Your task to perform on an android device: uninstall "Flipkart Online Shopping App" Image 0: 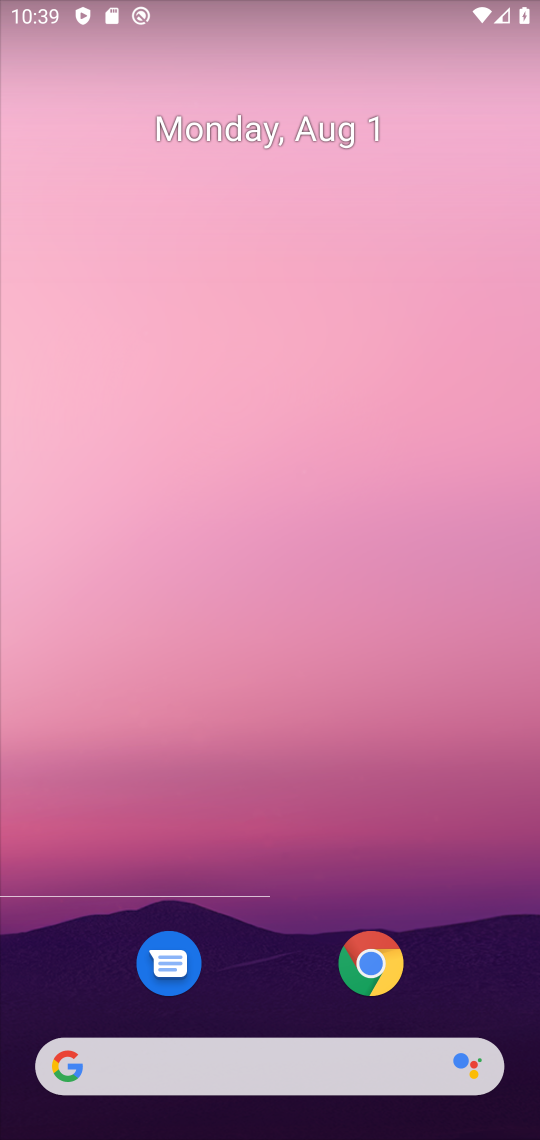
Step 0: click (456, 320)
Your task to perform on an android device: uninstall "Flipkart Online Shopping App" Image 1: 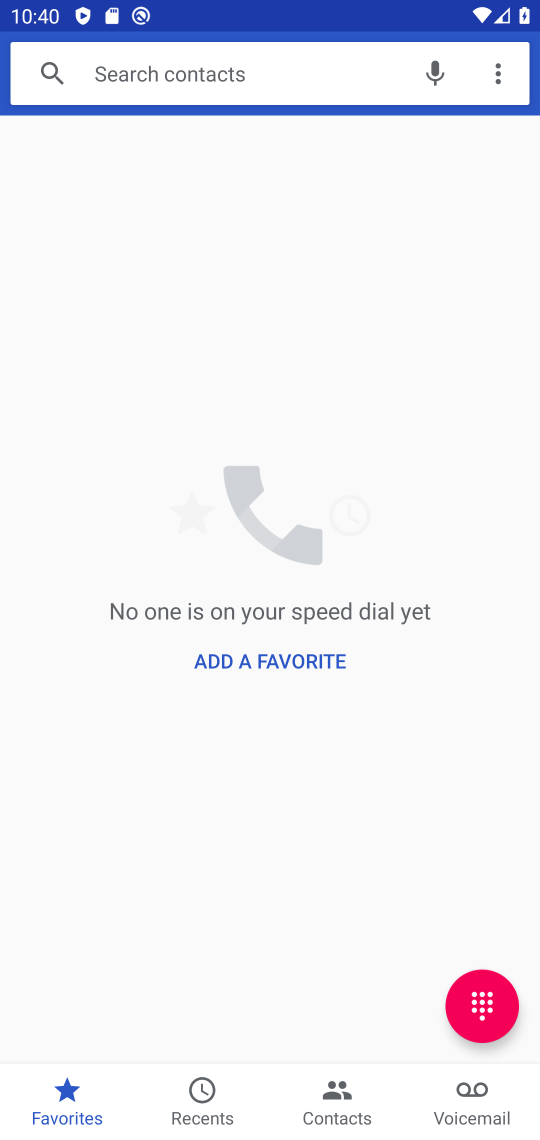
Step 1: press home button
Your task to perform on an android device: uninstall "Flipkart Online Shopping App" Image 2: 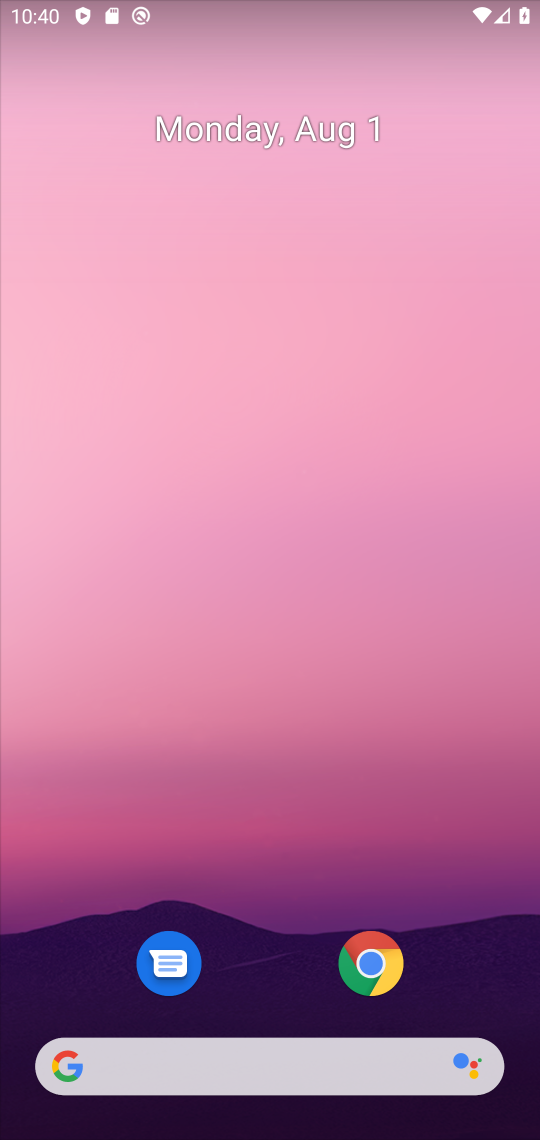
Step 2: drag from (262, 883) to (109, 7)
Your task to perform on an android device: uninstall "Flipkart Online Shopping App" Image 3: 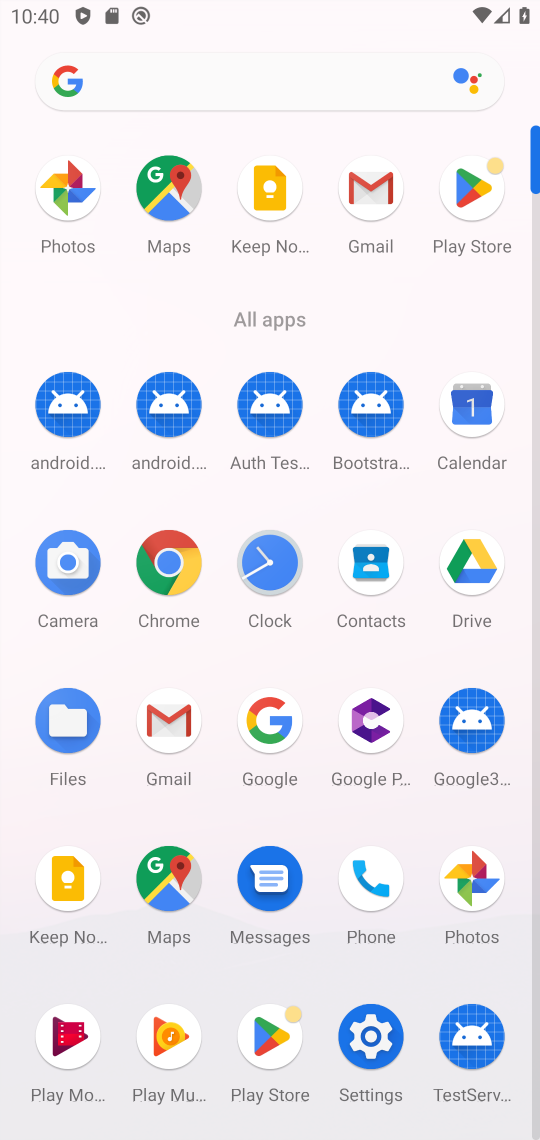
Step 3: click (479, 193)
Your task to perform on an android device: uninstall "Flipkart Online Shopping App" Image 4: 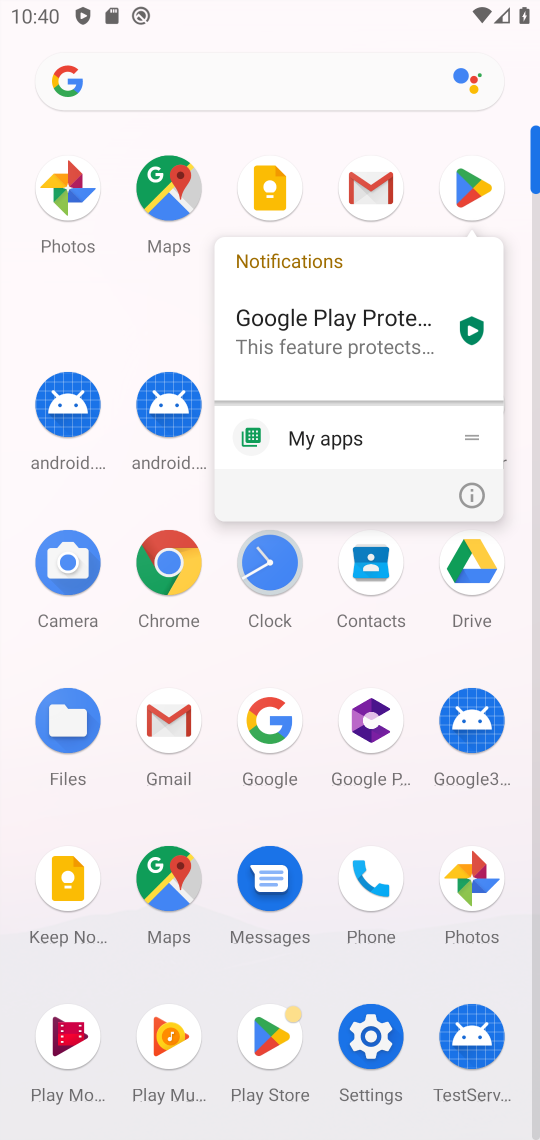
Step 4: click (475, 177)
Your task to perform on an android device: uninstall "Flipkart Online Shopping App" Image 5: 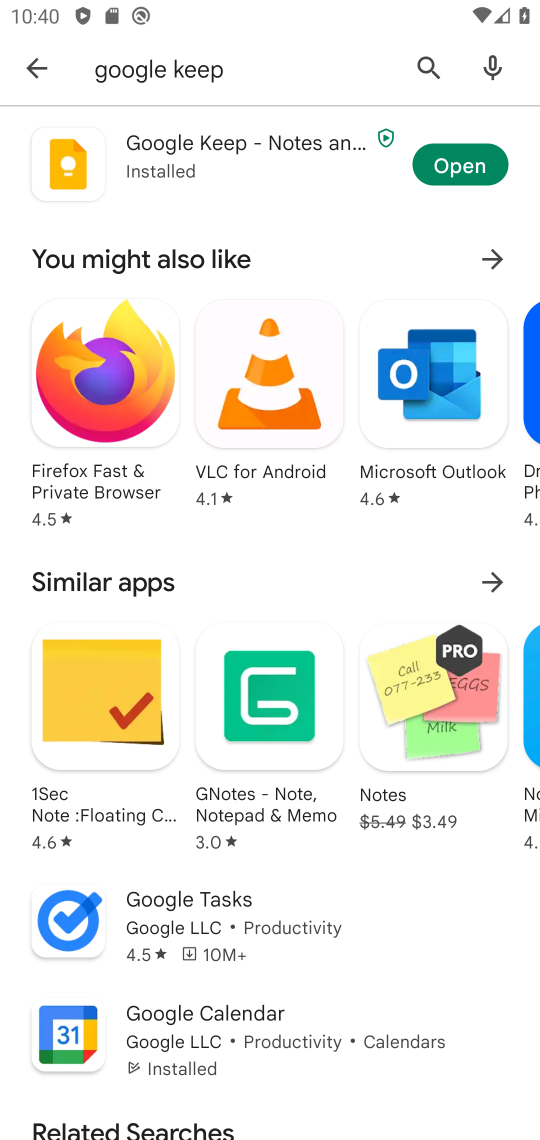
Step 5: click (226, 62)
Your task to perform on an android device: uninstall "Flipkart Online Shopping App" Image 6: 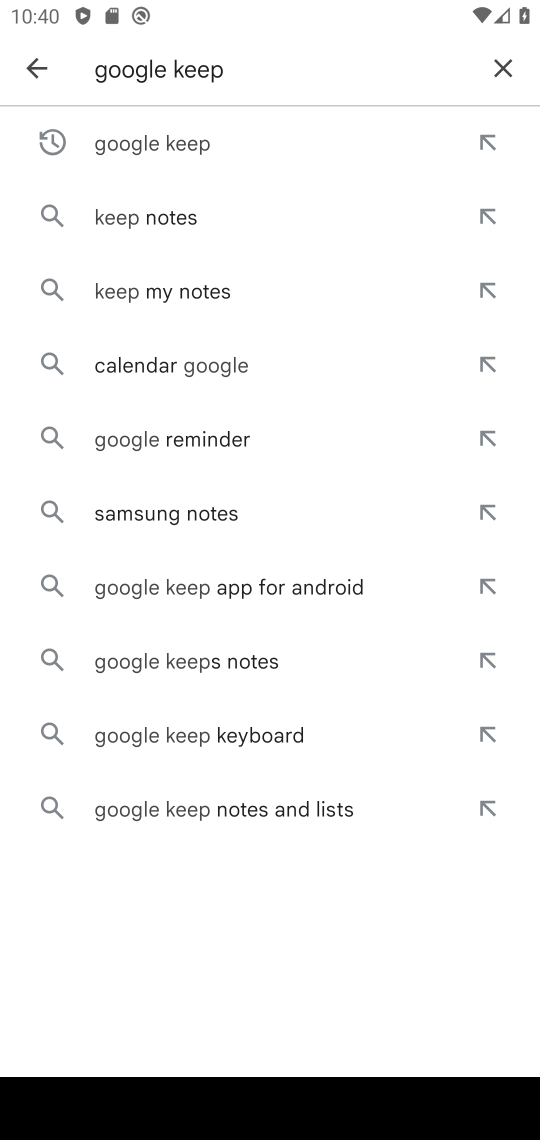
Step 6: click (516, 60)
Your task to perform on an android device: uninstall "Flipkart Online Shopping App" Image 7: 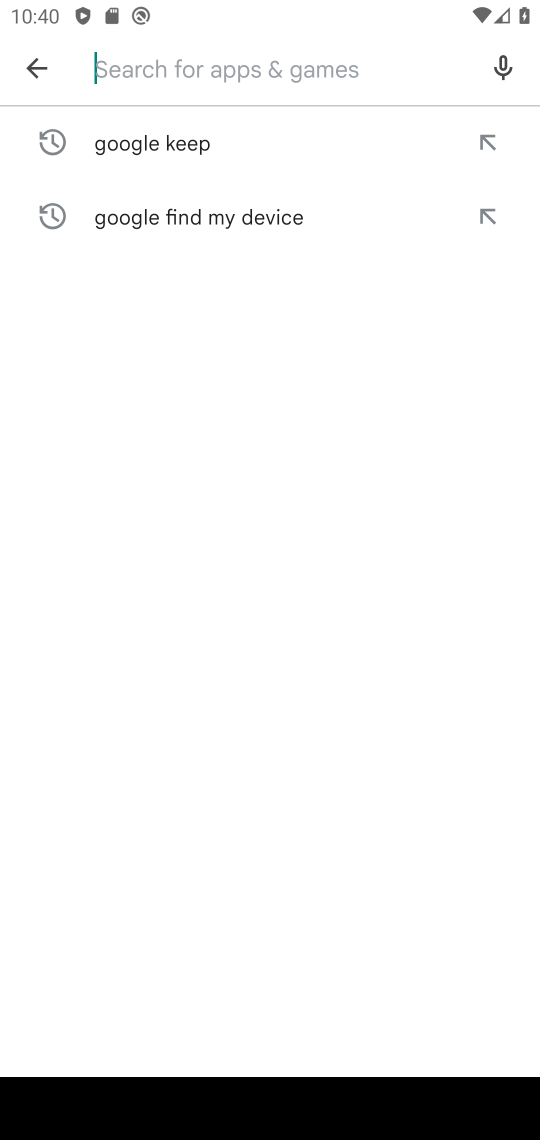
Step 7: type "flipkart"
Your task to perform on an android device: uninstall "Flipkart Online Shopping App" Image 8: 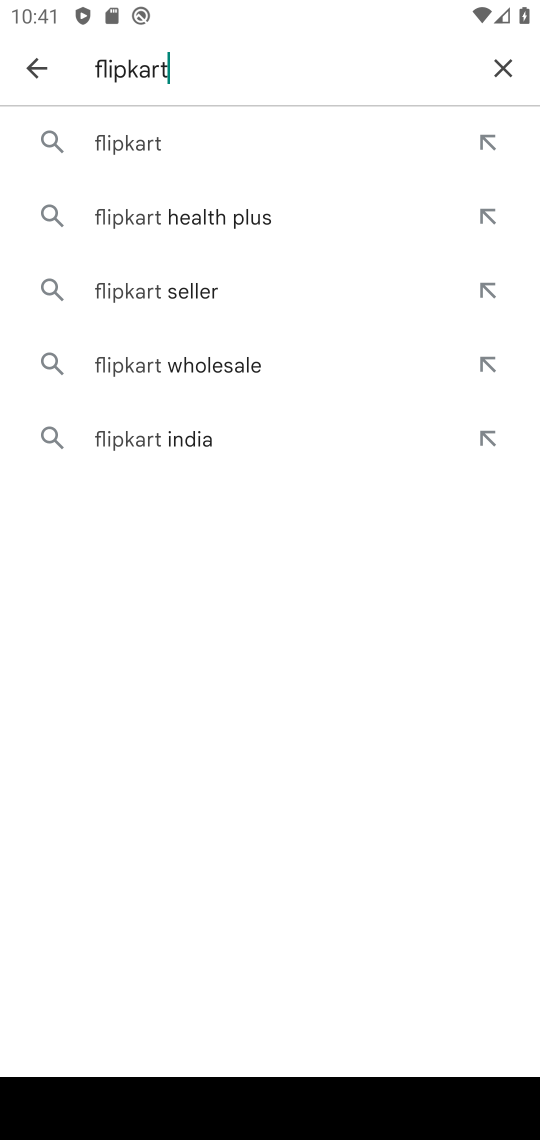
Step 8: click (191, 153)
Your task to perform on an android device: uninstall "Flipkart Online Shopping App" Image 9: 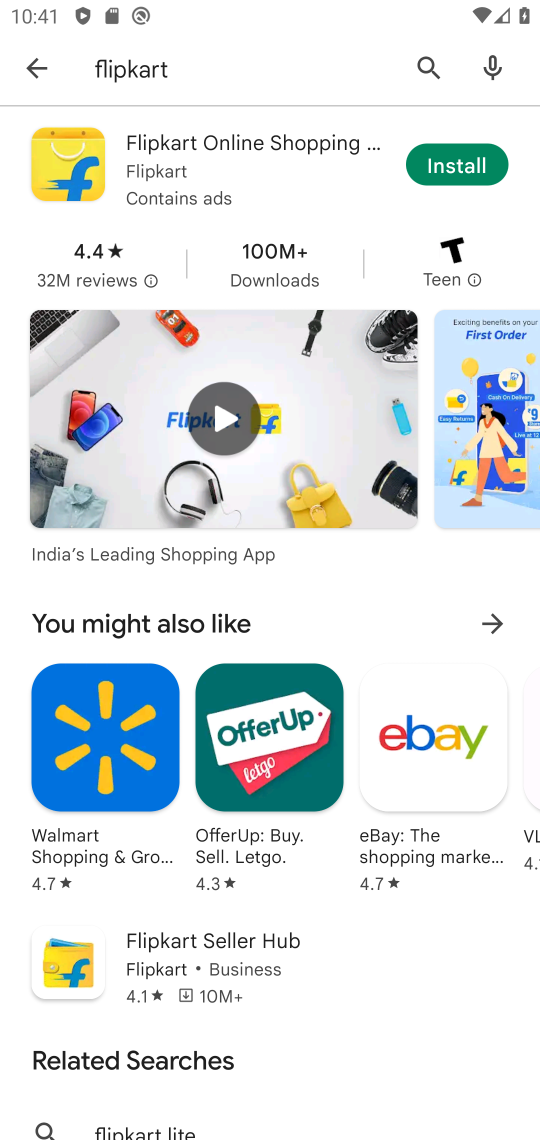
Step 9: task complete